Your task to perform on an android device: delete the emails in spam in the gmail app Image 0: 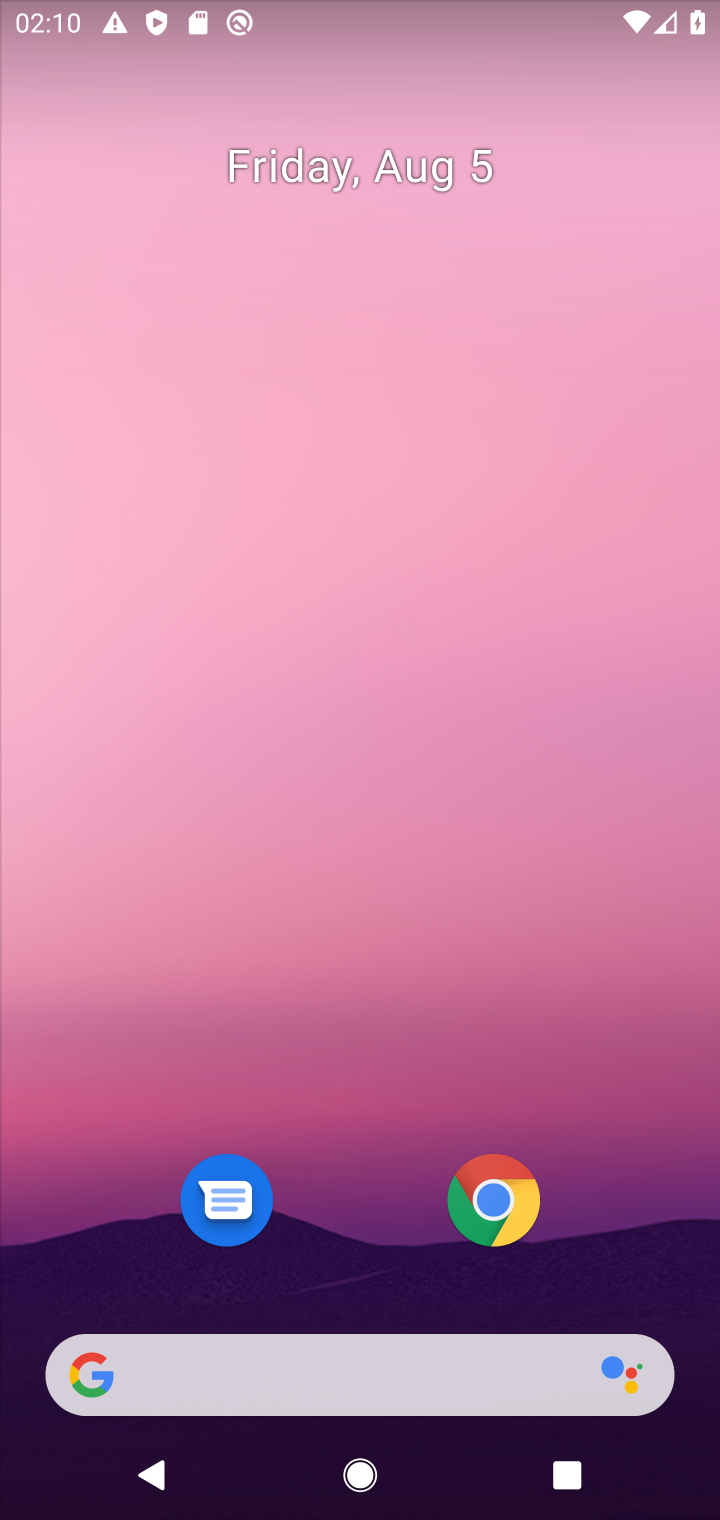
Step 0: drag from (334, 1119) to (285, 276)
Your task to perform on an android device: delete the emails in spam in the gmail app Image 1: 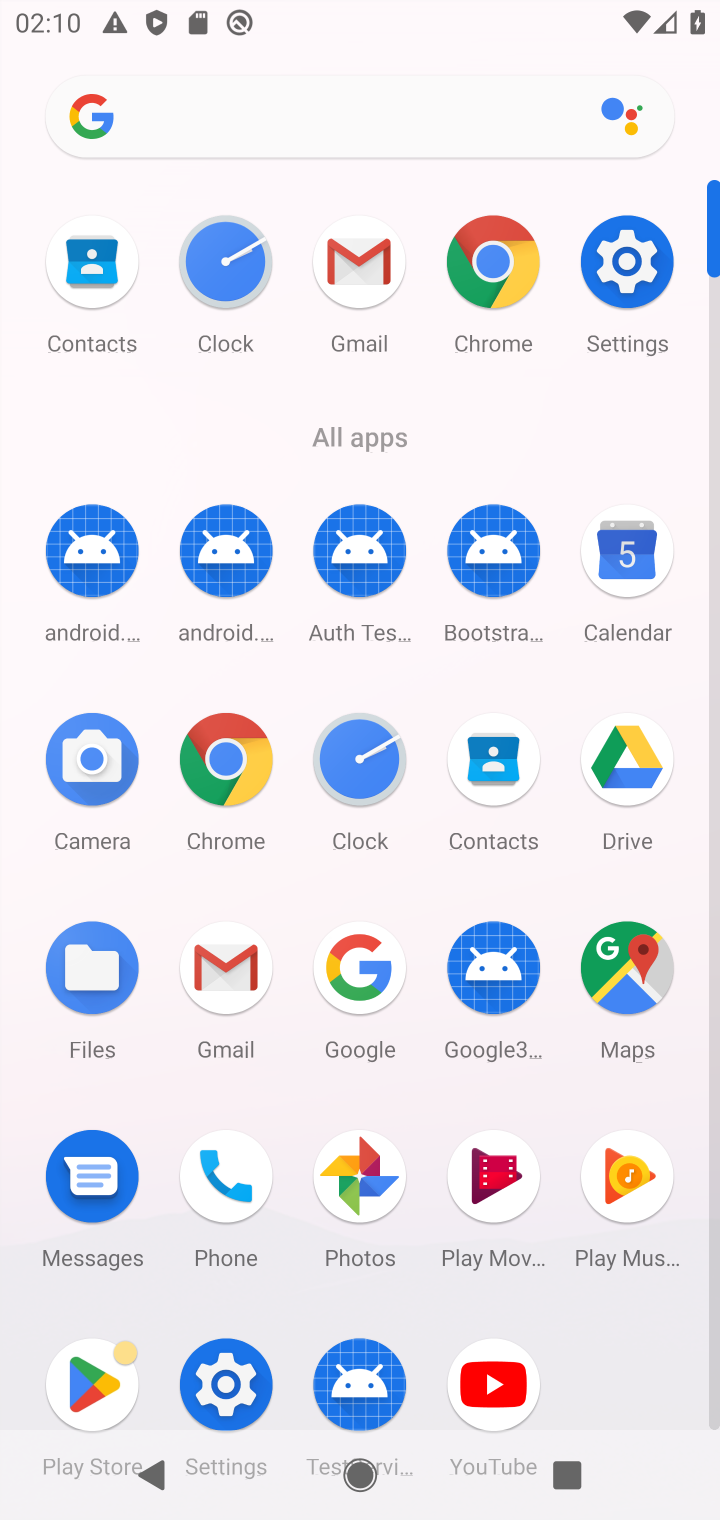
Step 1: click (234, 1002)
Your task to perform on an android device: delete the emails in spam in the gmail app Image 2: 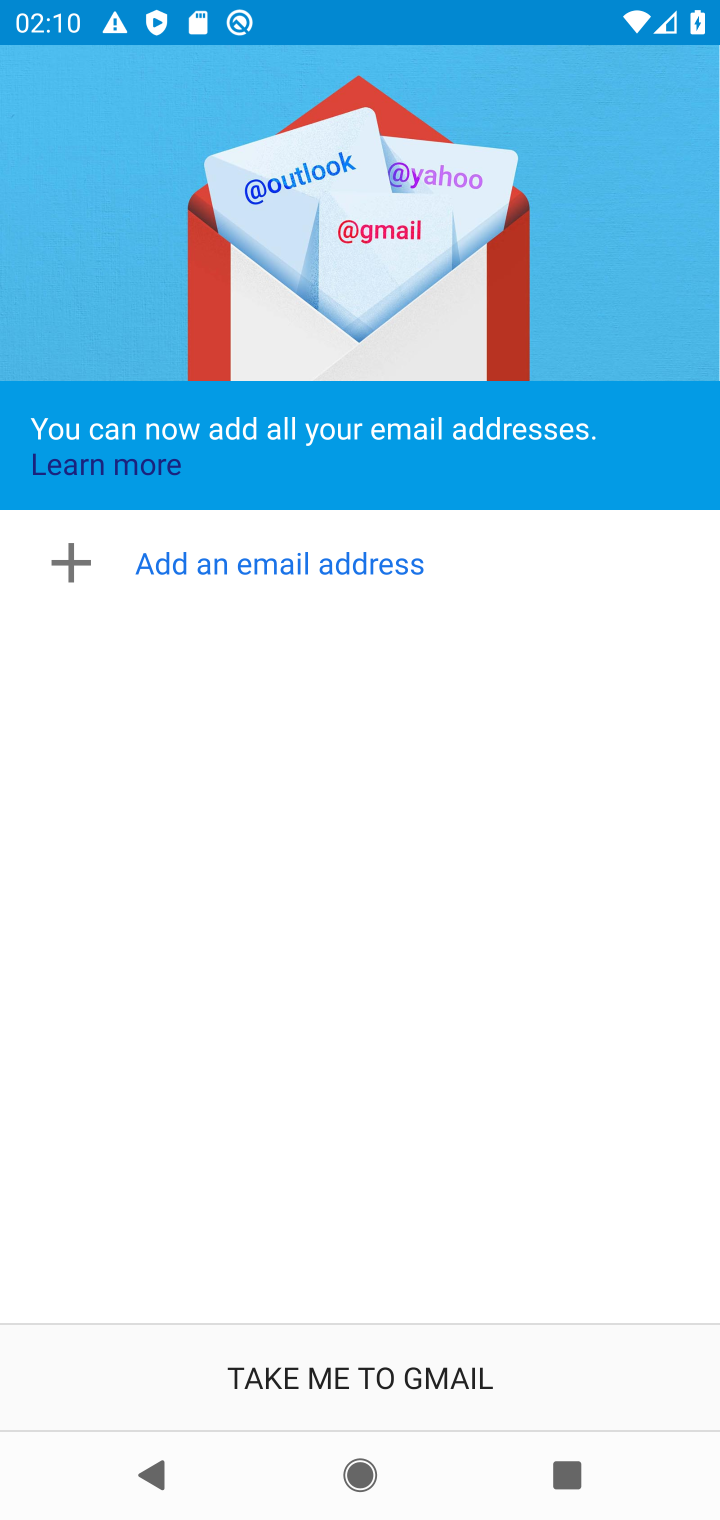
Step 2: click (379, 1374)
Your task to perform on an android device: delete the emails in spam in the gmail app Image 3: 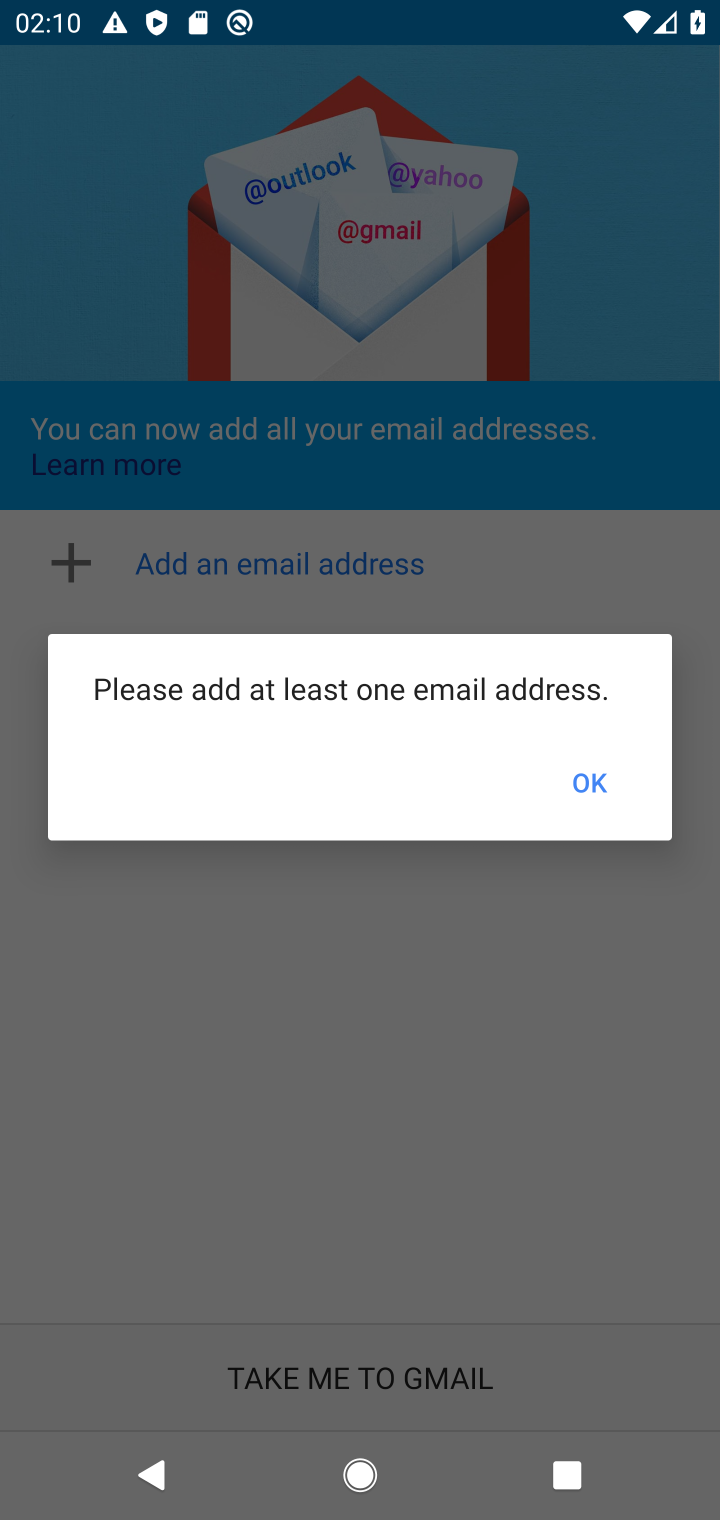
Step 3: task complete